Your task to perform on an android device: What's on my calendar today? Image 0: 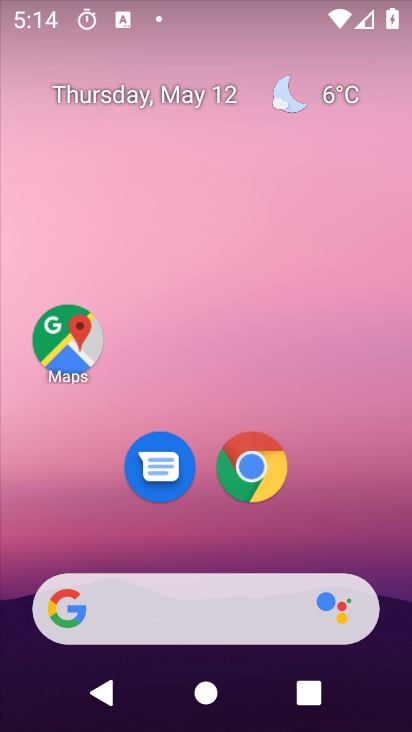
Step 0: drag from (167, 601) to (219, 55)
Your task to perform on an android device: What's on my calendar today? Image 1: 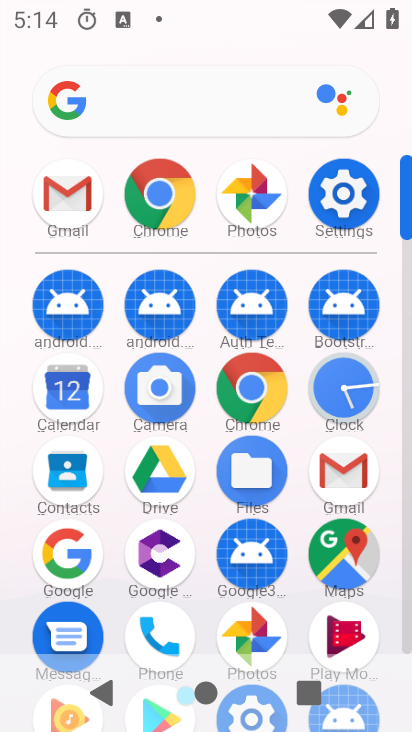
Step 1: click (46, 396)
Your task to perform on an android device: What's on my calendar today? Image 2: 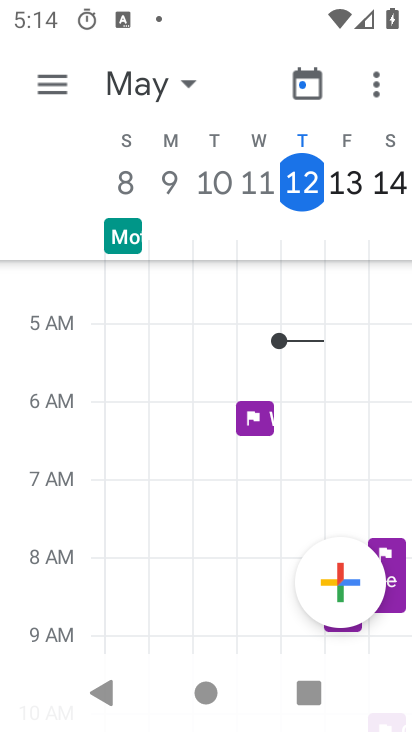
Step 2: click (185, 82)
Your task to perform on an android device: What's on my calendar today? Image 3: 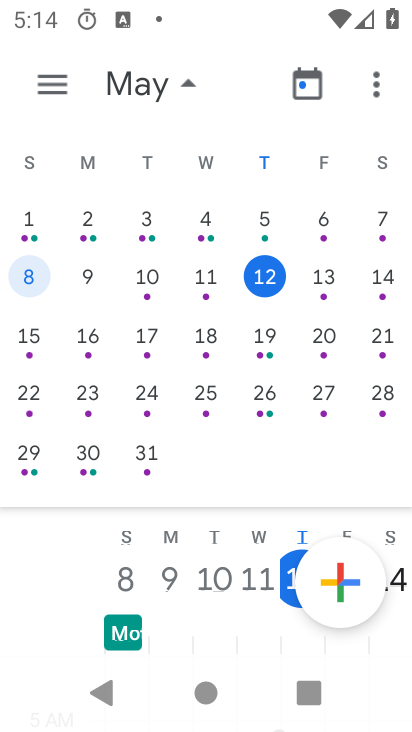
Step 3: click (267, 278)
Your task to perform on an android device: What's on my calendar today? Image 4: 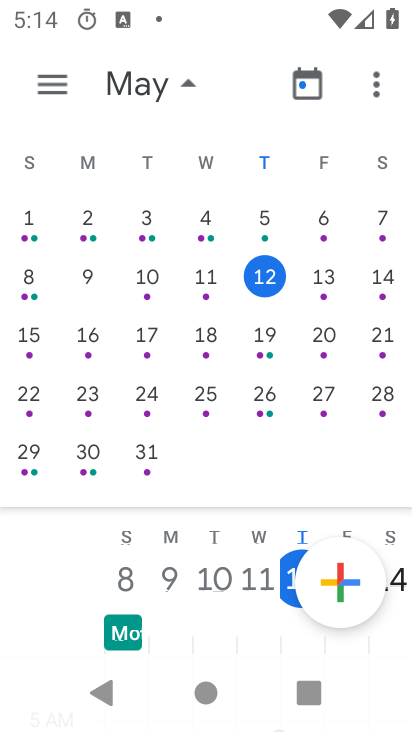
Step 4: task complete